Your task to perform on an android device: toggle notifications settings in the gmail app Image 0: 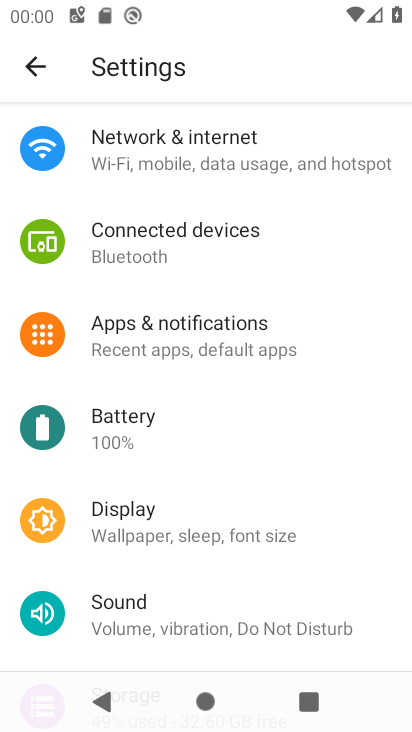
Step 0: click (214, 322)
Your task to perform on an android device: toggle notifications settings in the gmail app Image 1: 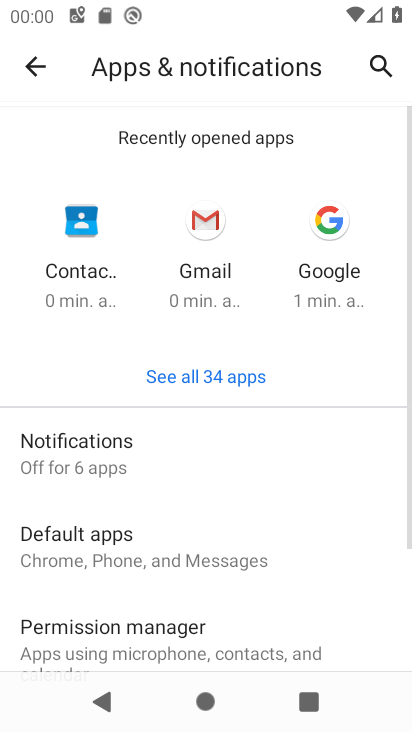
Step 1: click (209, 221)
Your task to perform on an android device: toggle notifications settings in the gmail app Image 2: 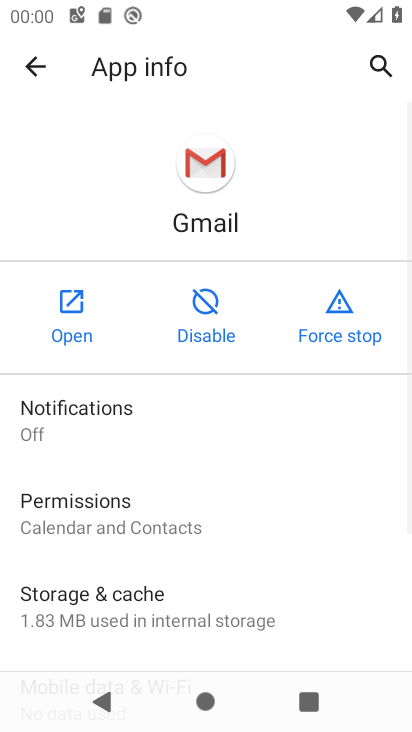
Step 2: click (132, 407)
Your task to perform on an android device: toggle notifications settings in the gmail app Image 3: 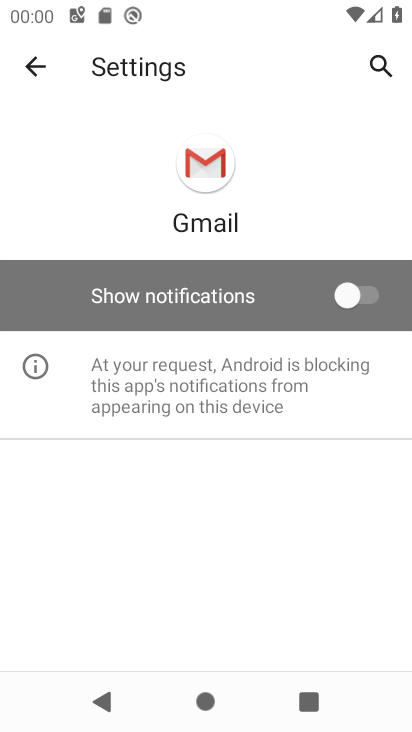
Step 3: click (355, 290)
Your task to perform on an android device: toggle notifications settings in the gmail app Image 4: 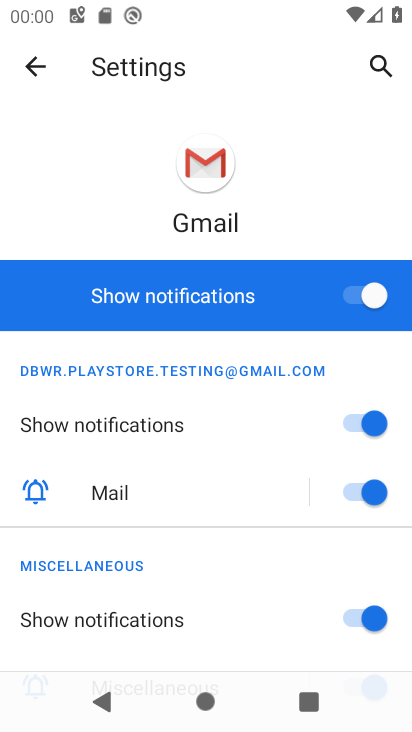
Step 4: task complete